Your task to perform on an android device: Open maps Image 0: 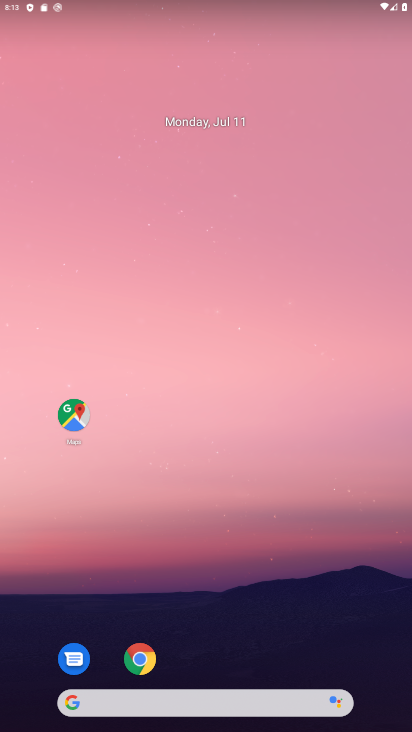
Step 0: click (72, 419)
Your task to perform on an android device: Open maps Image 1: 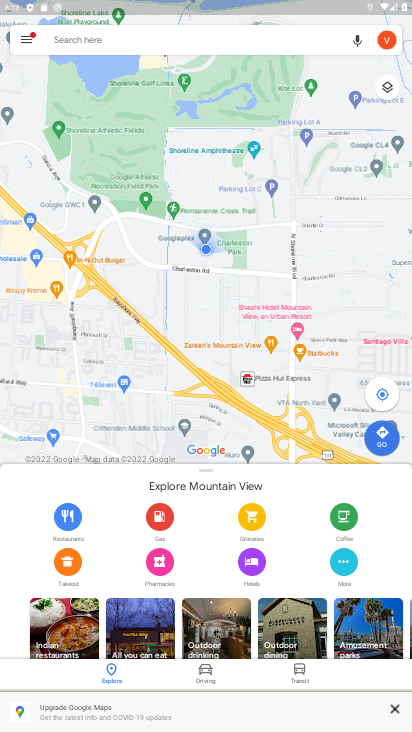
Step 1: task complete